Your task to perform on an android device: turn on notifications settings in the gmail app Image 0: 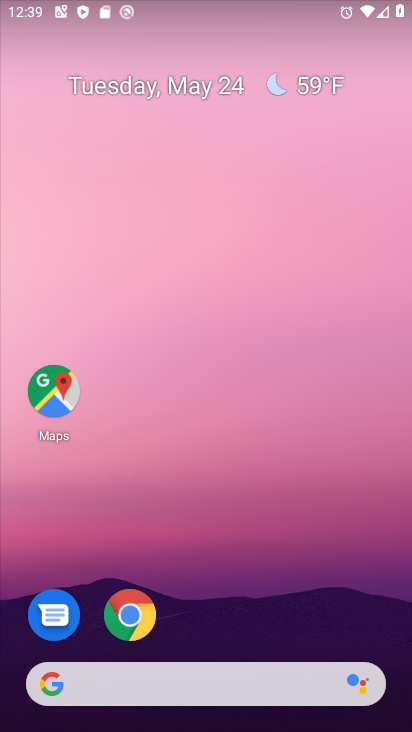
Step 0: drag from (283, 551) to (266, 93)
Your task to perform on an android device: turn on notifications settings in the gmail app Image 1: 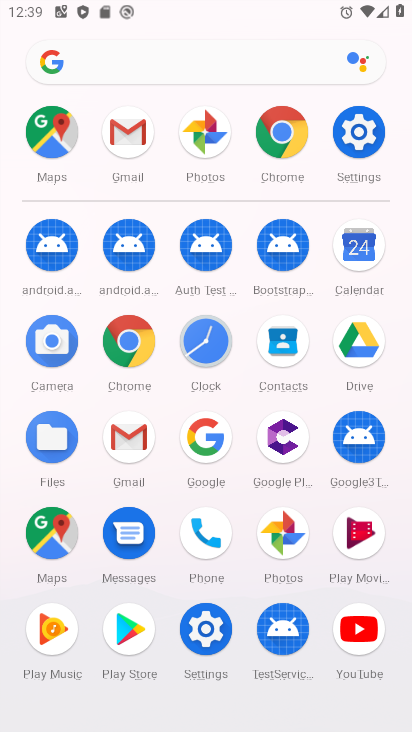
Step 1: click (125, 430)
Your task to perform on an android device: turn on notifications settings in the gmail app Image 2: 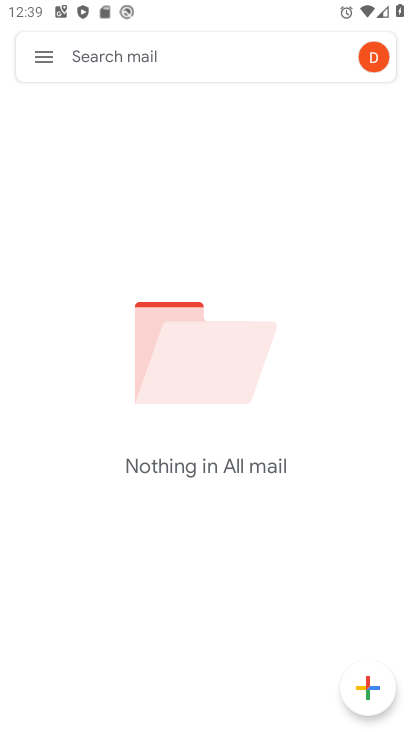
Step 2: click (39, 48)
Your task to perform on an android device: turn on notifications settings in the gmail app Image 3: 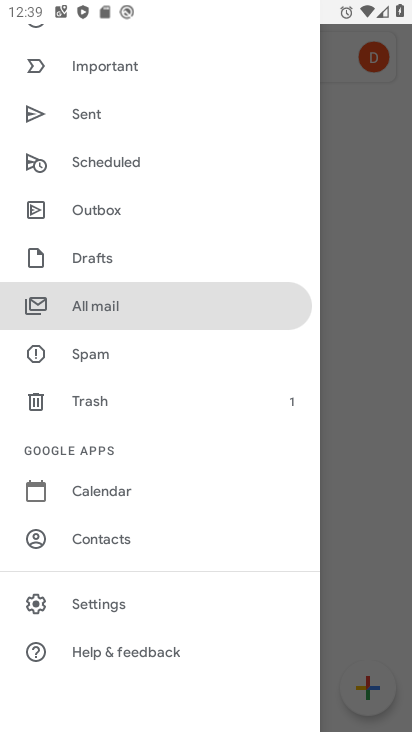
Step 3: click (111, 604)
Your task to perform on an android device: turn on notifications settings in the gmail app Image 4: 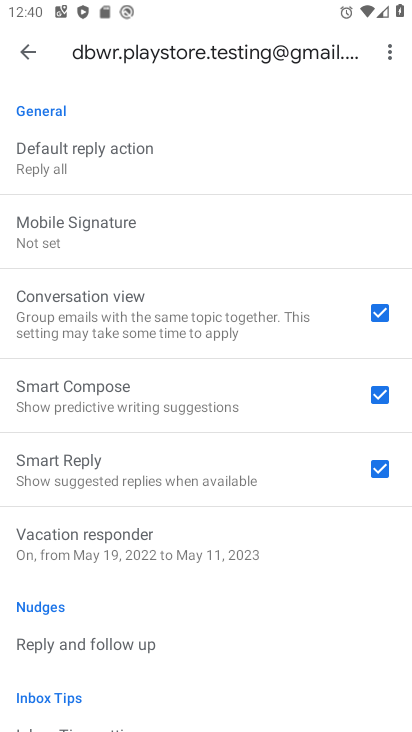
Step 4: drag from (159, 597) to (182, 133)
Your task to perform on an android device: turn on notifications settings in the gmail app Image 5: 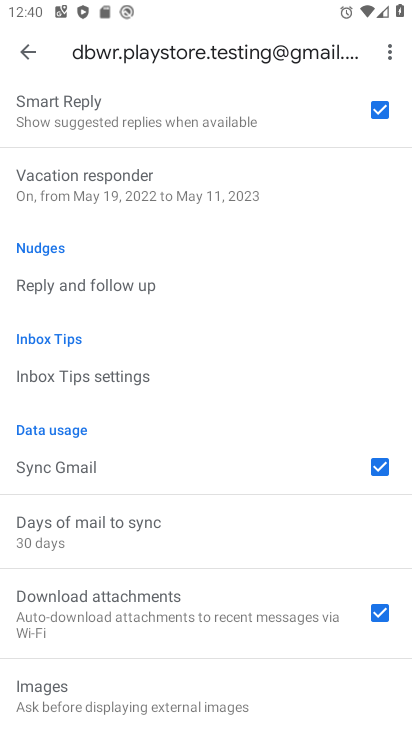
Step 5: drag from (181, 602) to (230, 190)
Your task to perform on an android device: turn on notifications settings in the gmail app Image 6: 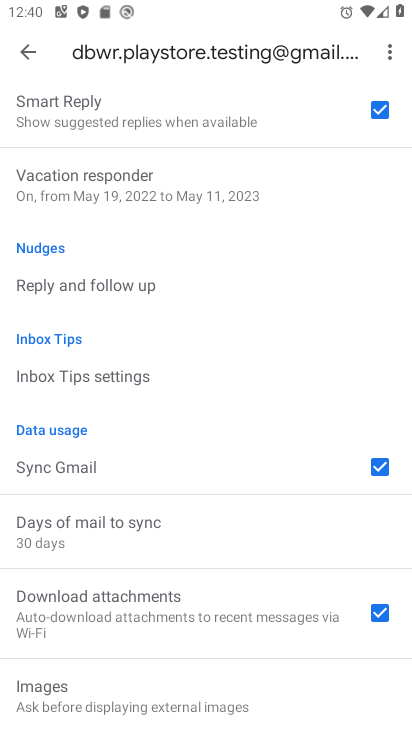
Step 6: drag from (224, 641) to (239, 188)
Your task to perform on an android device: turn on notifications settings in the gmail app Image 7: 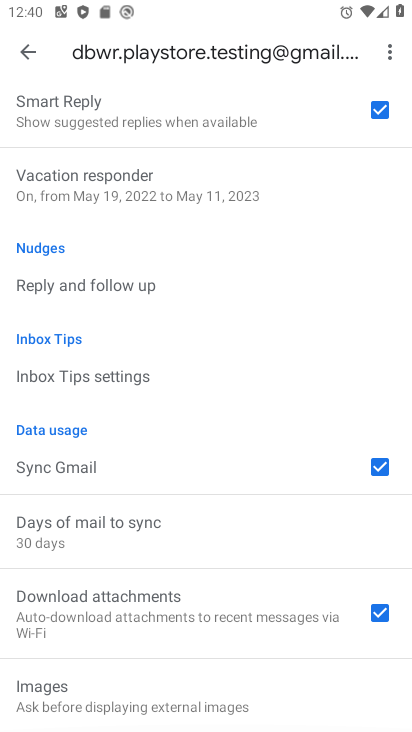
Step 7: drag from (239, 264) to (231, 649)
Your task to perform on an android device: turn on notifications settings in the gmail app Image 8: 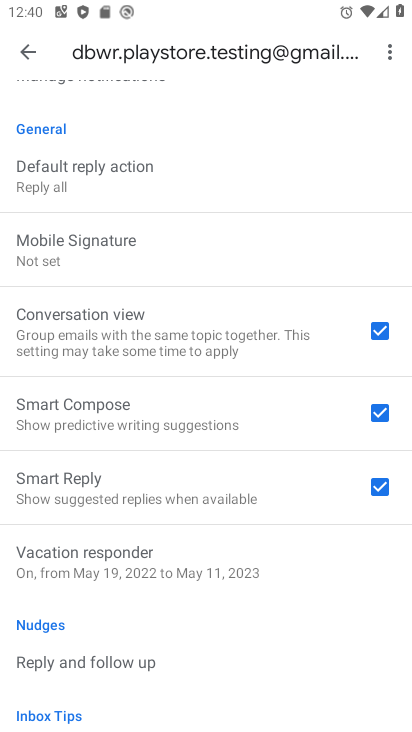
Step 8: drag from (198, 165) to (150, 624)
Your task to perform on an android device: turn on notifications settings in the gmail app Image 9: 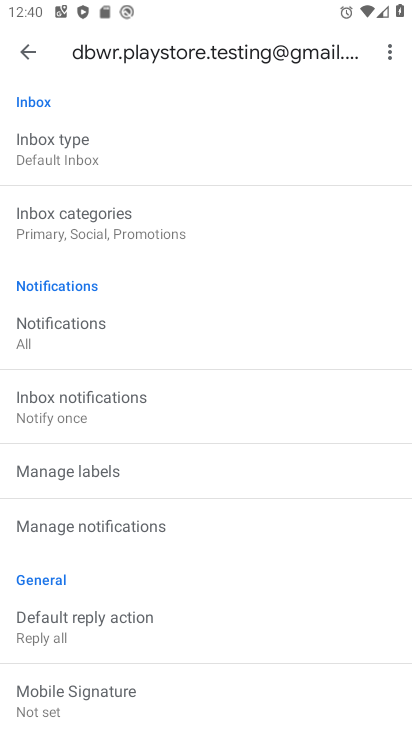
Step 9: click (138, 534)
Your task to perform on an android device: turn on notifications settings in the gmail app Image 10: 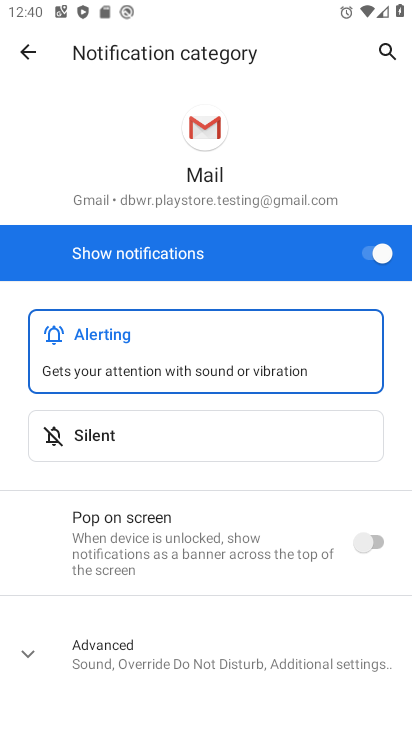
Step 10: task complete